Your task to perform on an android device: Clear the cart on costco.com. Add lg ultragear to the cart on costco.com Image 0: 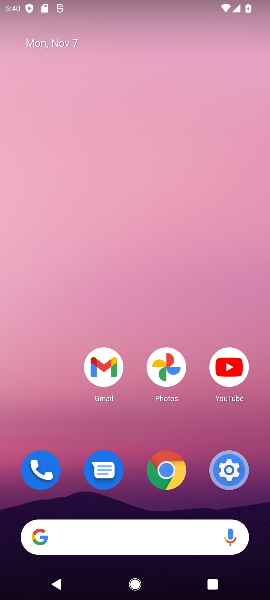
Step 0: click (172, 460)
Your task to perform on an android device: Clear the cart on costco.com. Add lg ultragear to the cart on costco.com Image 1: 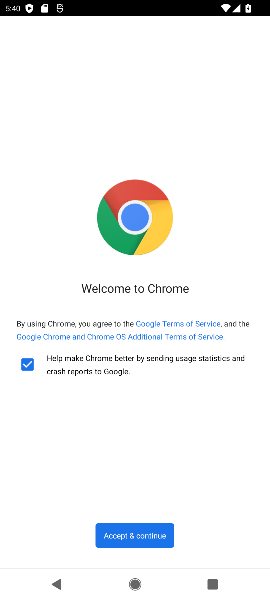
Step 1: click (165, 540)
Your task to perform on an android device: Clear the cart on costco.com. Add lg ultragear to the cart on costco.com Image 2: 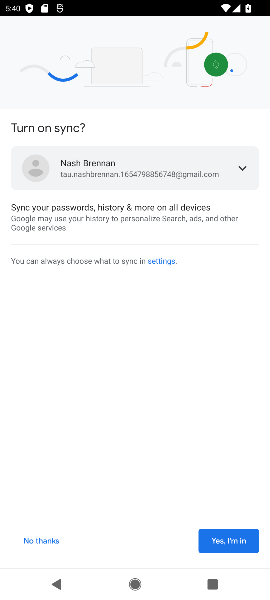
Step 2: click (224, 545)
Your task to perform on an android device: Clear the cart on costco.com. Add lg ultragear to the cart on costco.com Image 3: 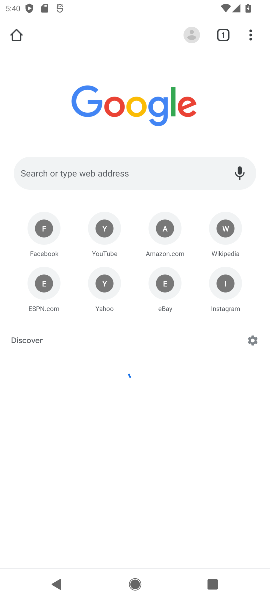
Step 3: click (224, 545)
Your task to perform on an android device: Clear the cart on costco.com. Add lg ultragear to the cart on costco.com Image 4: 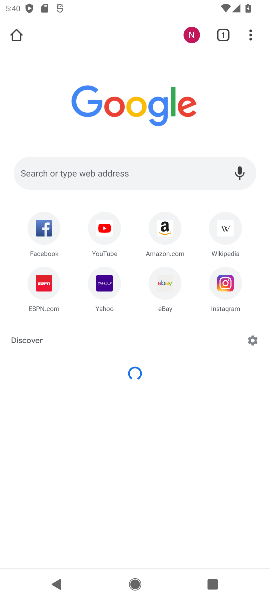
Step 4: click (139, 173)
Your task to perform on an android device: Clear the cart on costco.com. Add lg ultragear to the cart on costco.com Image 5: 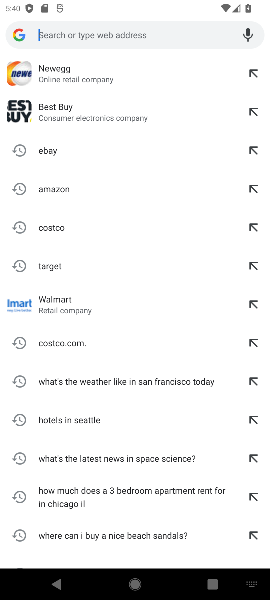
Step 5: click (74, 227)
Your task to perform on an android device: Clear the cart on costco.com. Add lg ultragear to the cart on costco.com Image 6: 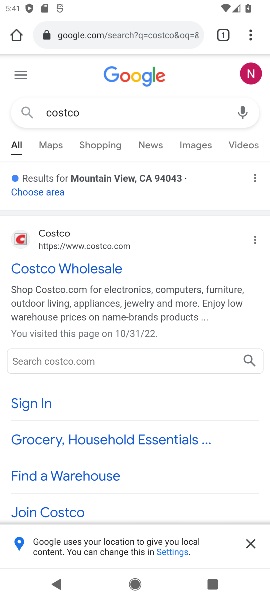
Step 6: click (94, 273)
Your task to perform on an android device: Clear the cart on costco.com. Add lg ultragear to the cart on costco.com Image 7: 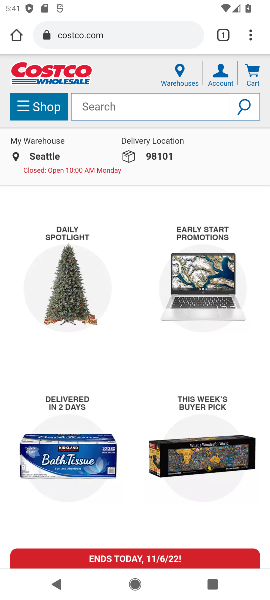
Step 7: click (258, 83)
Your task to perform on an android device: Clear the cart on costco.com. Add lg ultragear to the cart on costco.com Image 8: 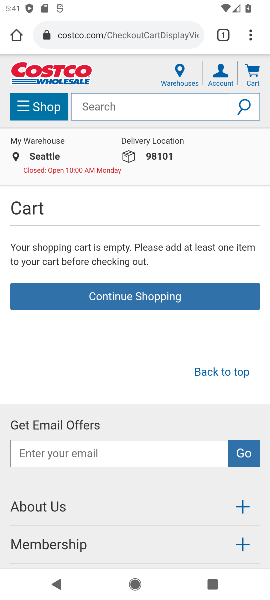
Step 8: click (118, 107)
Your task to perform on an android device: Clear the cart on costco.com. Add lg ultragear to the cart on costco.com Image 9: 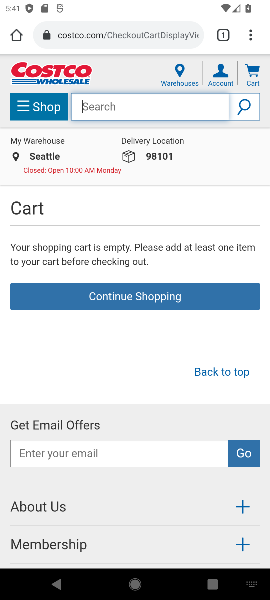
Step 9: type "lg ultragear "
Your task to perform on an android device: Clear the cart on costco.com. Add lg ultragear to the cart on costco.com Image 10: 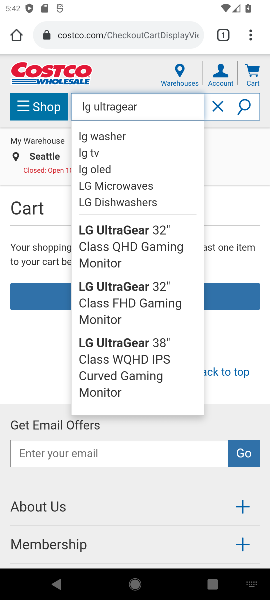
Step 10: click (248, 103)
Your task to perform on an android device: Clear the cart on costco.com. Add lg ultragear to the cart on costco.com Image 11: 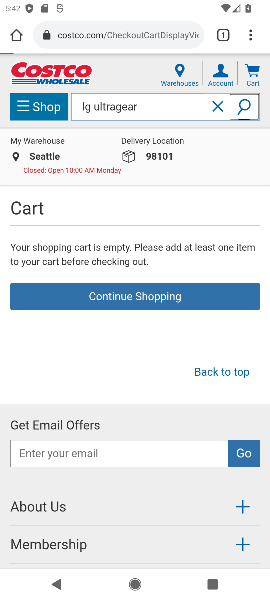
Step 11: click (248, 103)
Your task to perform on an android device: Clear the cart on costco.com. Add lg ultragear to the cart on costco.com Image 12: 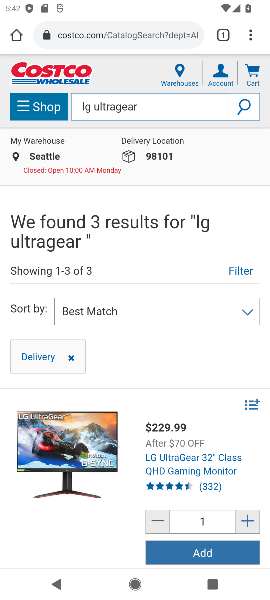
Step 12: click (225, 545)
Your task to perform on an android device: Clear the cart on costco.com. Add lg ultragear to the cart on costco.com Image 13: 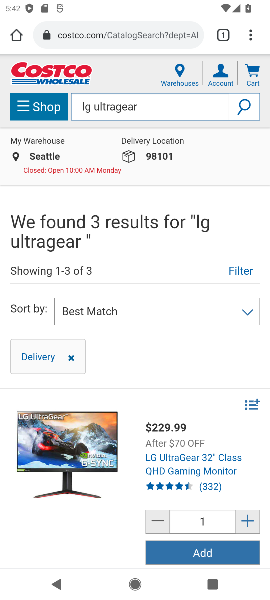
Step 13: click (191, 556)
Your task to perform on an android device: Clear the cart on costco.com. Add lg ultragear to the cart on costco.com Image 14: 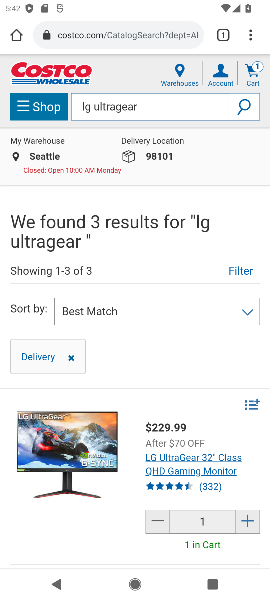
Step 14: task complete